Your task to perform on an android device: add a contact Image 0: 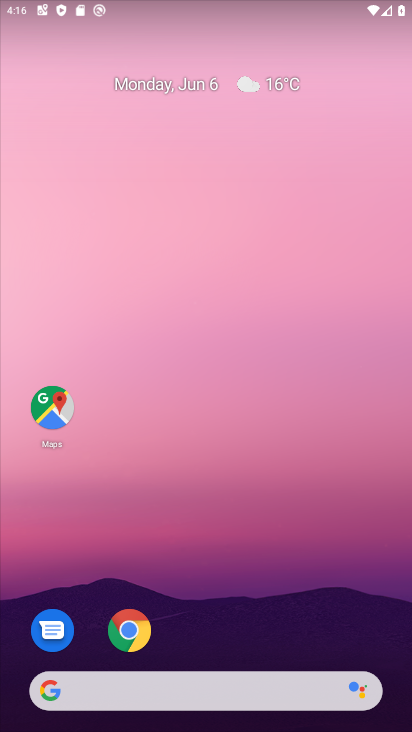
Step 0: drag from (220, 506) to (241, 60)
Your task to perform on an android device: add a contact Image 1: 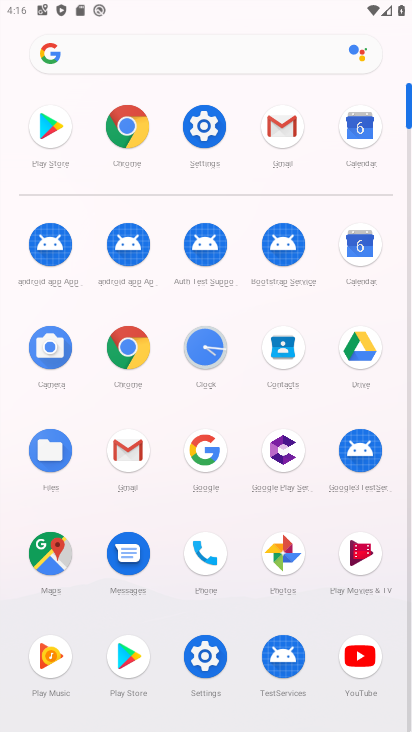
Step 1: click (279, 349)
Your task to perform on an android device: add a contact Image 2: 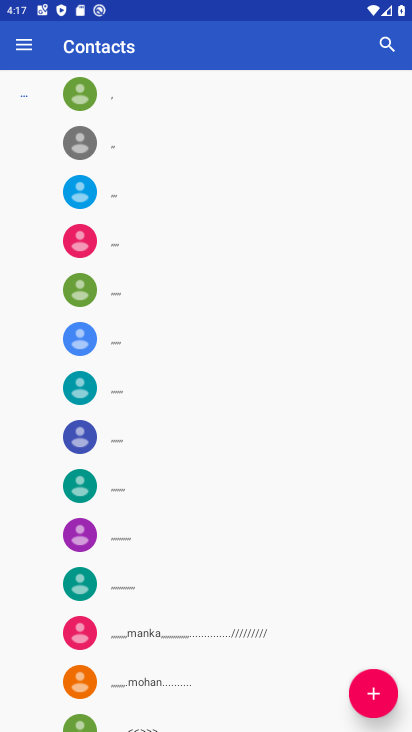
Step 2: click (363, 679)
Your task to perform on an android device: add a contact Image 3: 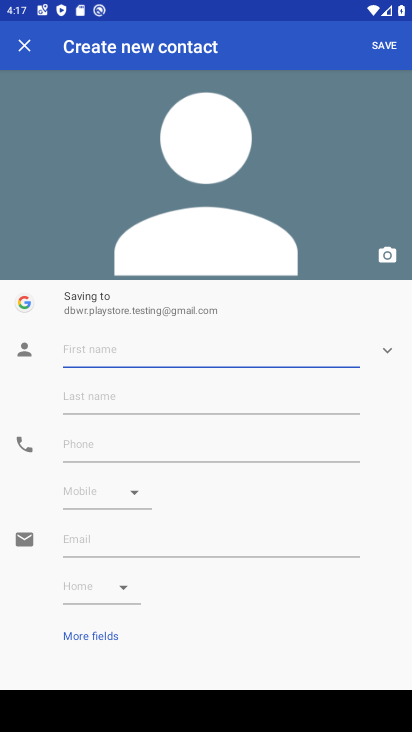
Step 3: click (88, 342)
Your task to perform on an android device: add a contact Image 4: 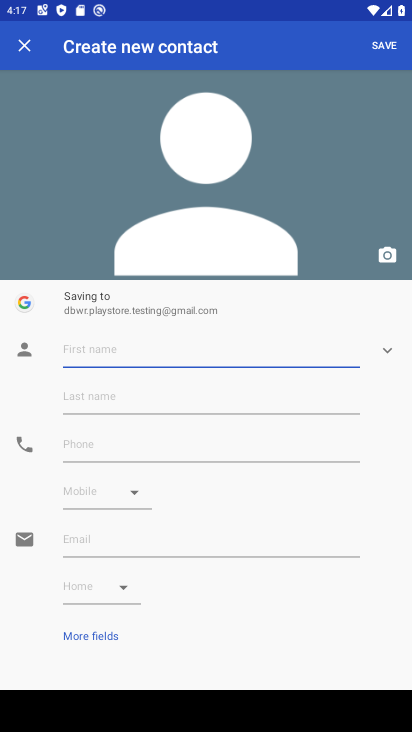
Step 4: type "gjgjg"
Your task to perform on an android device: add a contact Image 5: 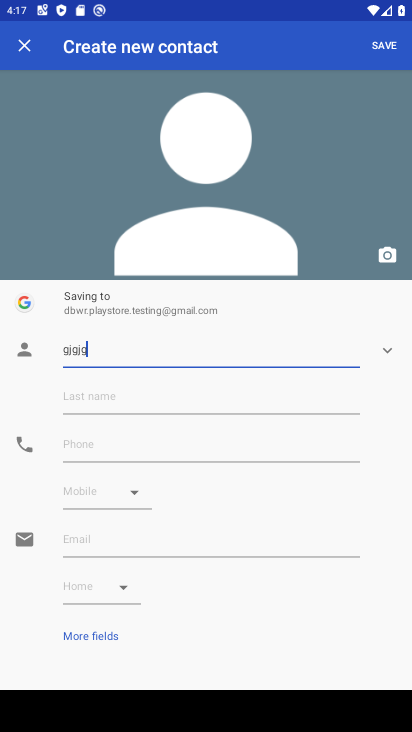
Step 5: click (80, 445)
Your task to perform on an android device: add a contact Image 6: 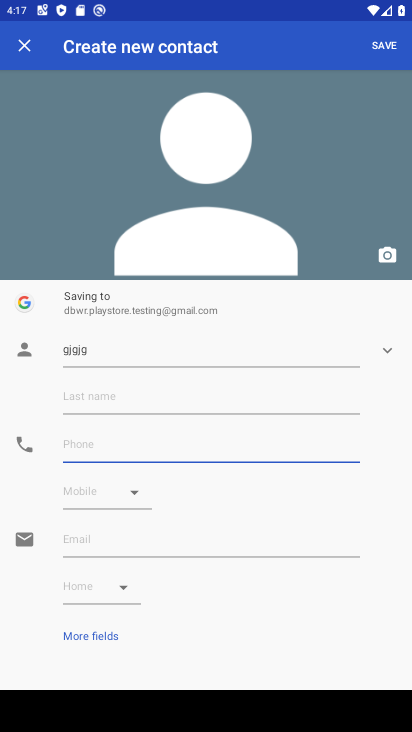
Step 6: type "i08989"
Your task to perform on an android device: add a contact Image 7: 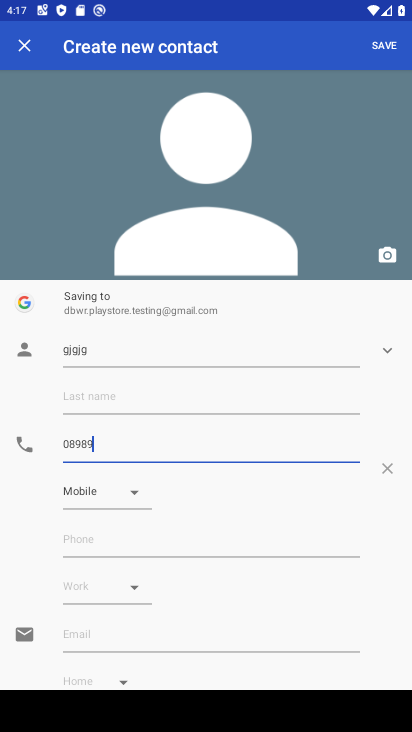
Step 7: click (385, 35)
Your task to perform on an android device: add a contact Image 8: 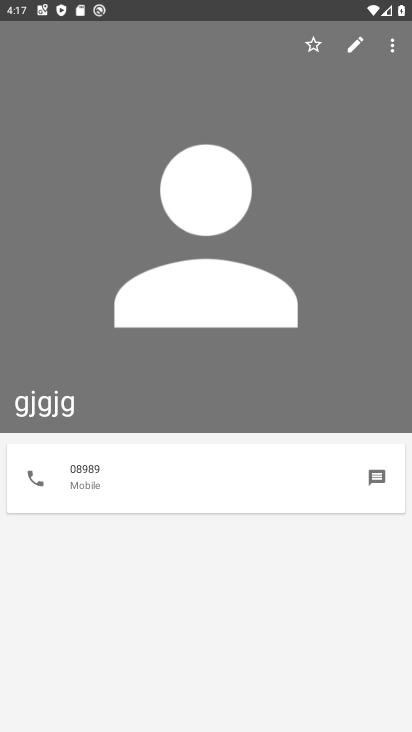
Step 8: task complete